Your task to perform on an android device: Show me popular videos on Youtube Image 0: 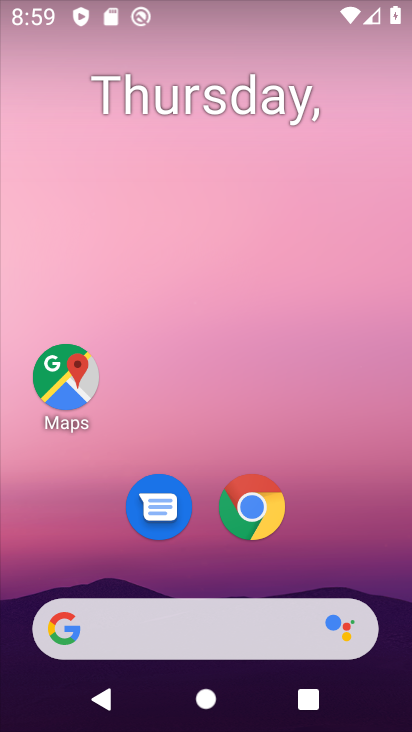
Step 0: drag from (207, 576) to (230, 14)
Your task to perform on an android device: Show me popular videos on Youtube Image 1: 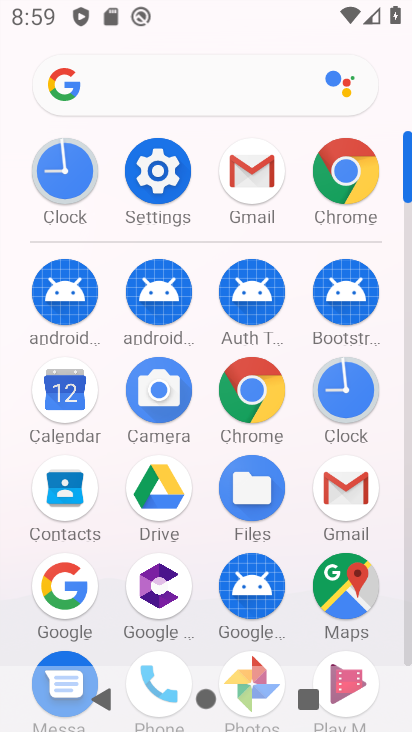
Step 1: drag from (222, 626) to (282, 145)
Your task to perform on an android device: Show me popular videos on Youtube Image 2: 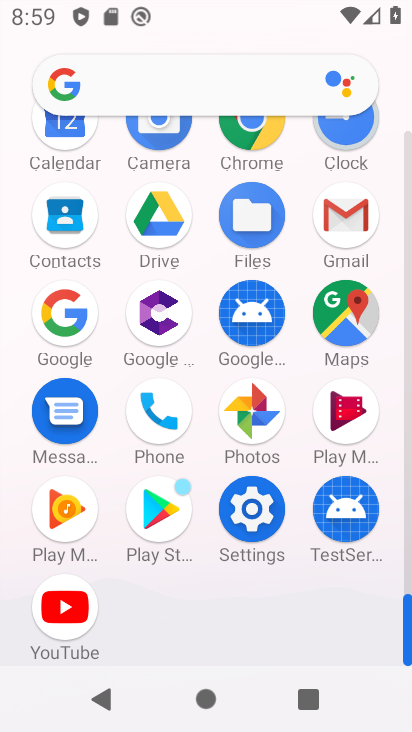
Step 2: click (72, 620)
Your task to perform on an android device: Show me popular videos on Youtube Image 3: 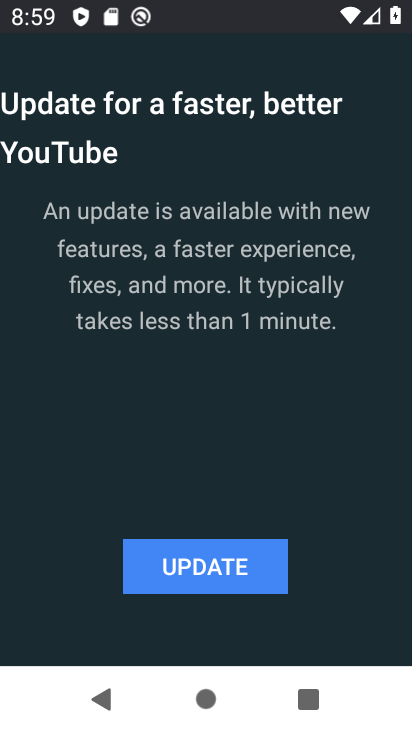
Step 3: click (237, 583)
Your task to perform on an android device: Show me popular videos on Youtube Image 4: 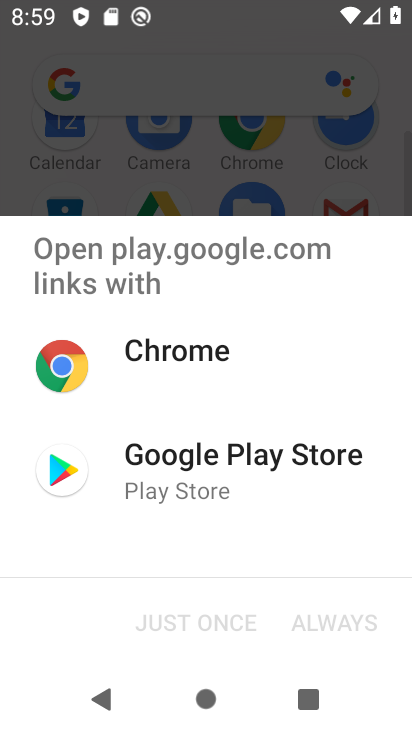
Step 4: click (181, 490)
Your task to perform on an android device: Show me popular videos on Youtube Image 5: 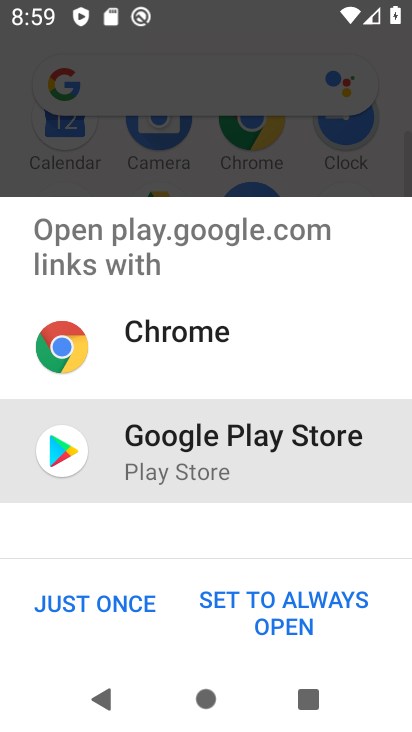
Step 5: click (124, 596)
Your task to perform on an android device: Show me popular videos on Youtube Image 6: 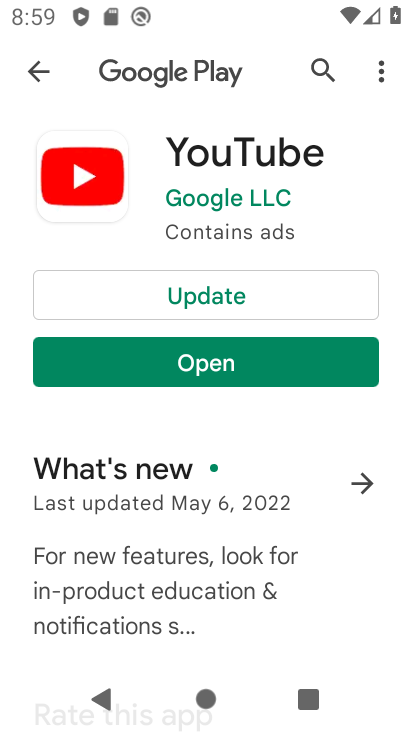
Step 6: click (253, 294)
Your task to perform on an android device: Show me popular videos on Youtube Image 7: 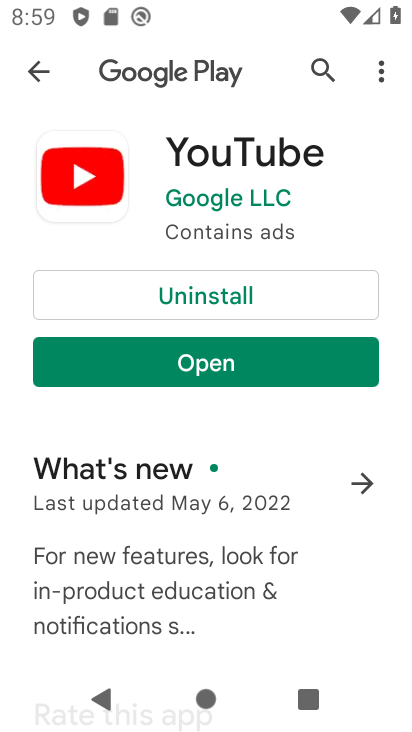
Step 7: click (248, 365)
Your task to perform on an android device: Show me popular videos on Youtube Image 8: 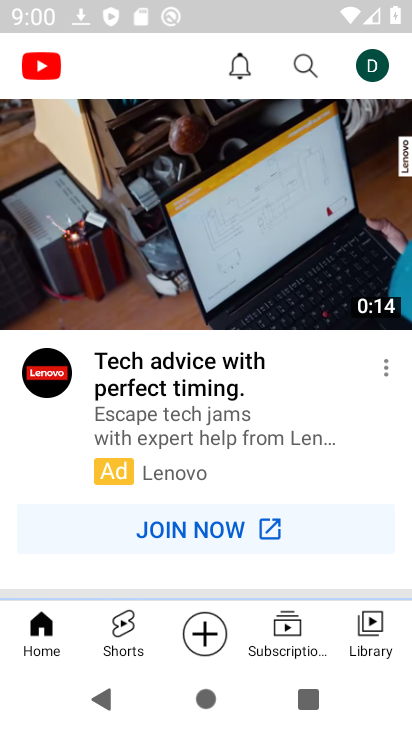
Step 8: drag from (201, 224) to (181, 555)
Your task to perform on an android device: Show me popular videos on Youtube Image 9: 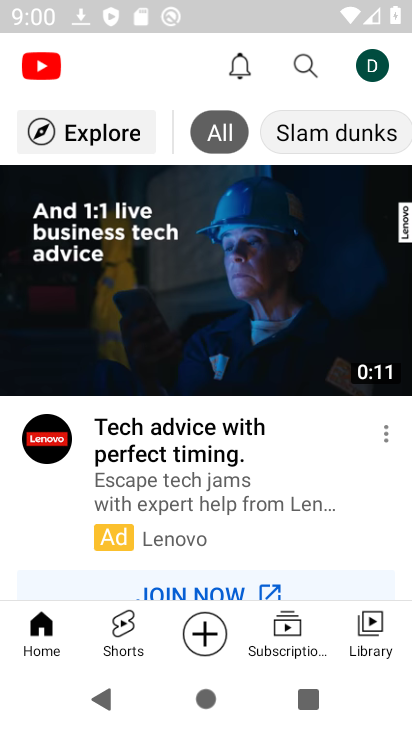
Step 9: click (81, 129)
Your task to perform on an android device: Show me popular videos on Youtube Image 10: 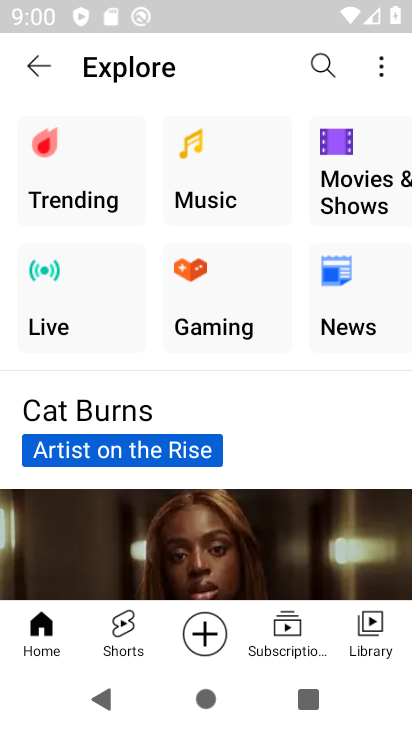
Step 10: click (69, 177)
Your task to perform on an android device: Show me popular videos on Youtube Image 11: 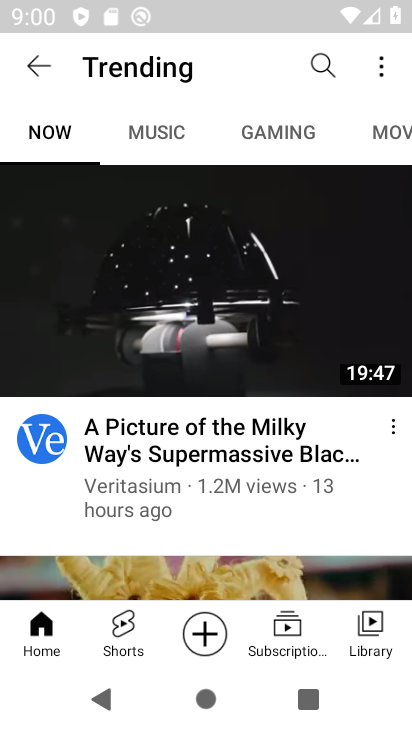
Step 11: task complete